Your task to perform on an android device: install app "Firefox Browser" Image 0: 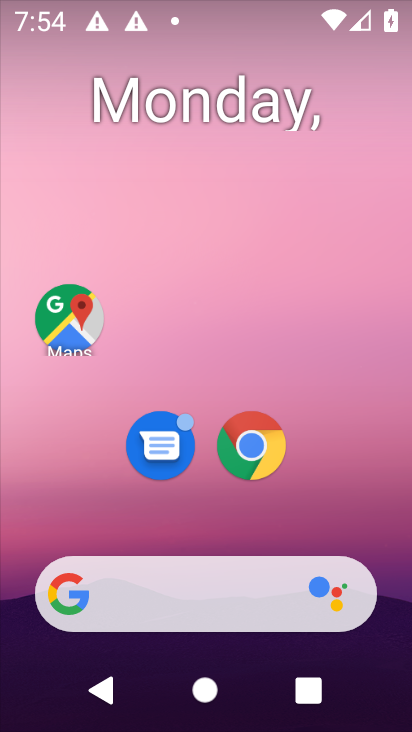
Step 0: drag from (401, 585) to (220, 57)
Your task to perform on an android device: install app "Firefox Browser" Image 1: 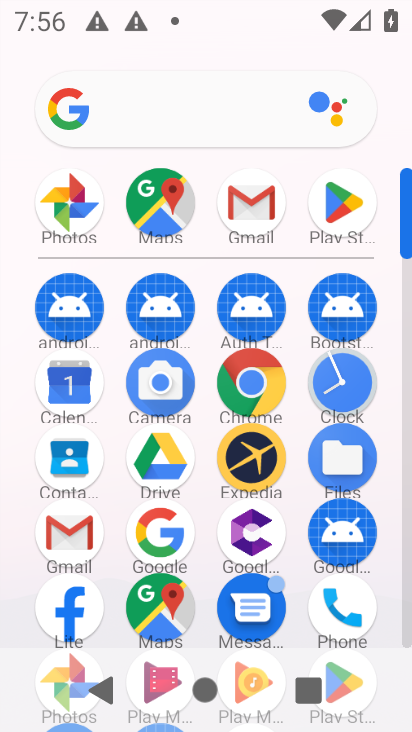
Step 1: click (338, 195)
Your task to perform on an android device: install app "Firefox Browser" Image 2: 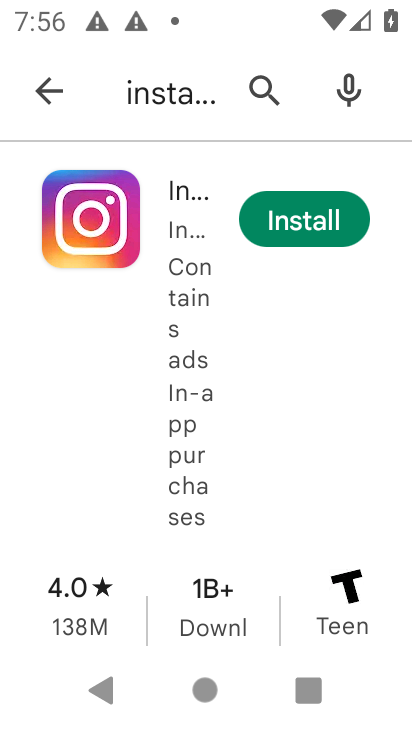
Step 2: press back button
Your task to perform on an android device: install app "Firefox Browser" Image 3: 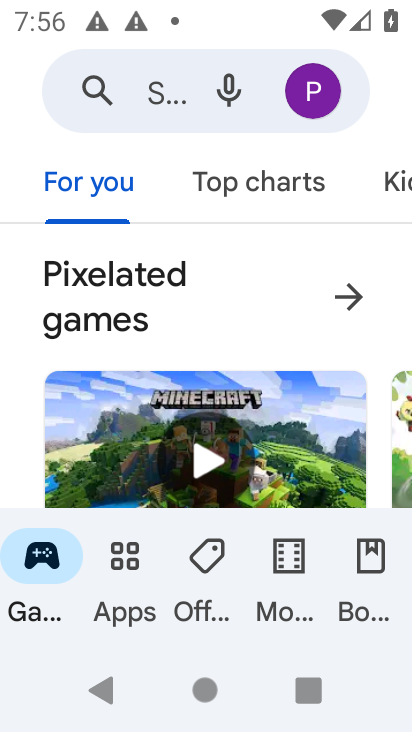
Step 3: click (160, 106)
Your task to perform on an android device: install app "Firefox Browser" Image 4: 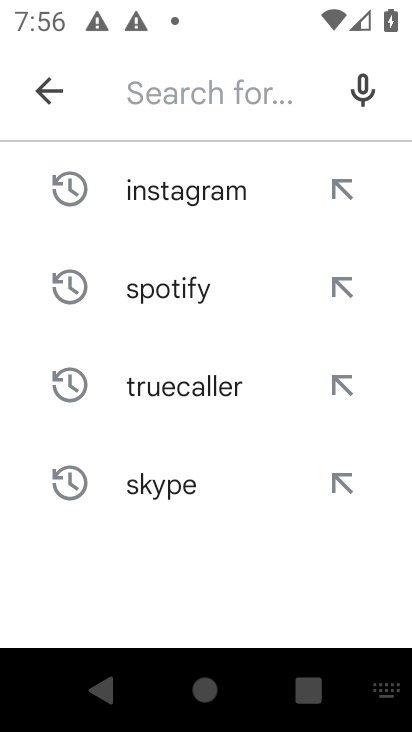
Step 4: type "Firefox Browser"
Your task to perform on an android device: install app "Firefox Browser" Image 5: 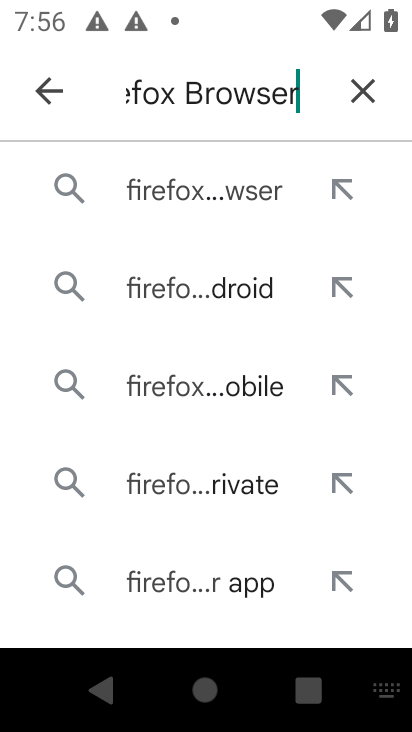
Step 5: click (169, 196)
Your task to perform on an android device: install app "Firefox Browser" Image 6: 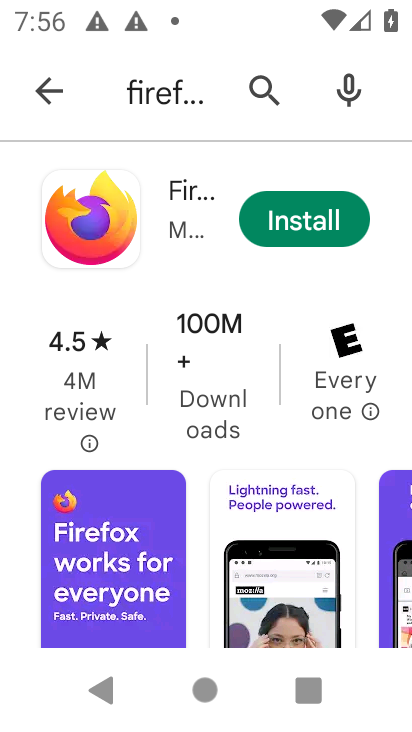
Step 6: click (317, 217)
Your task to perform on an android device: install app "Firefox Browser" Image 7: 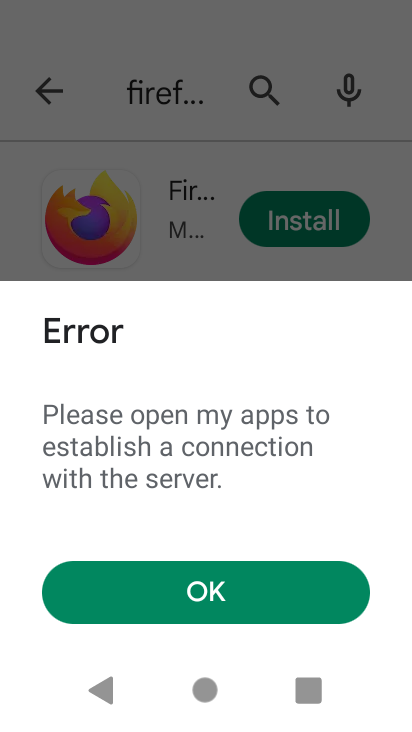
Step 7: task complete